Your task to perform on an android device: change alarm snooze length Image 0: 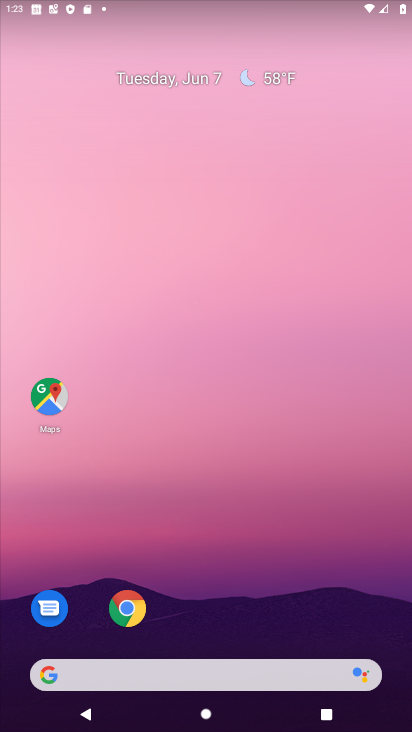
Step 0: drag from (283, 603) to (344, 132)
Your task to perform on an android device: change alarm snooze length Image 1: 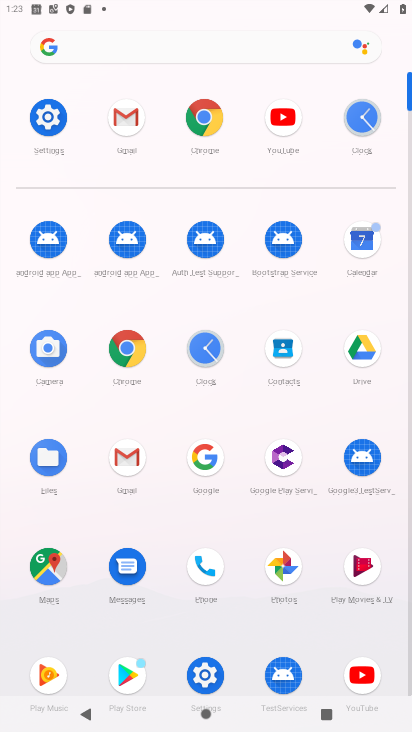
Step 1: click (374, 116)
Your task to perform on an android device: change alarm snooze length Image 2: 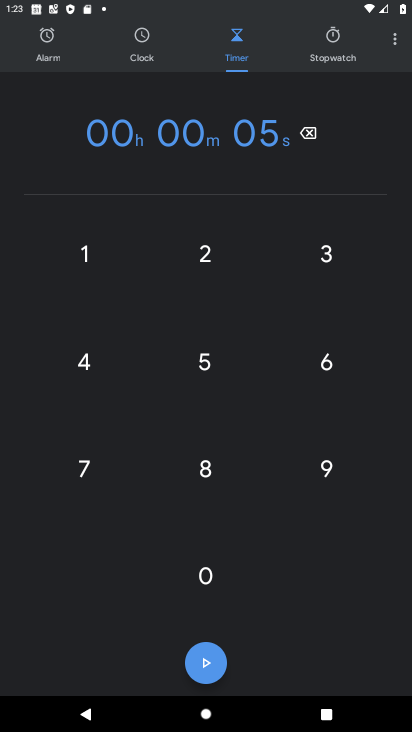
Step 2: click (394, 43)
Your task to perform on an android device: change alarm snooze length Image 3: 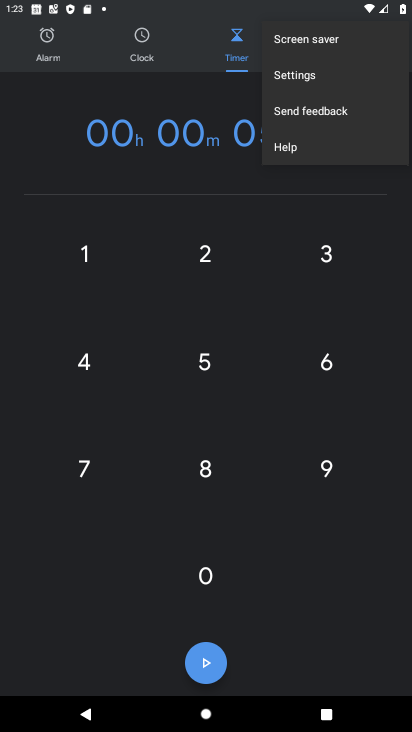
Step 3: click (331, 82)
Your task to perform on an android device: change alarm snooze length Image 4: 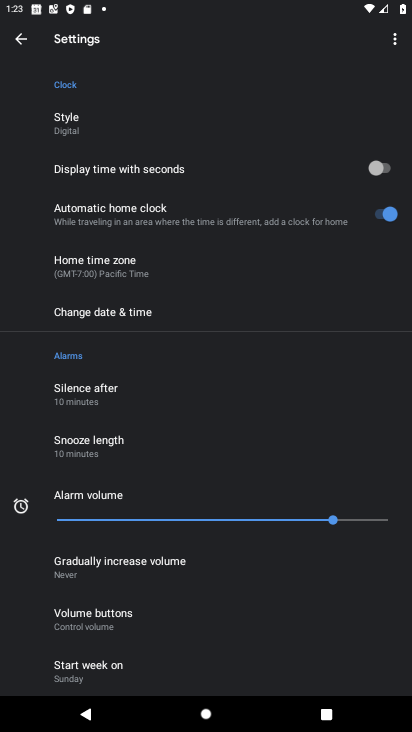
Step 4: click (102, 452)
Your task to perform on an android device: change alarm snooze length Image 5: 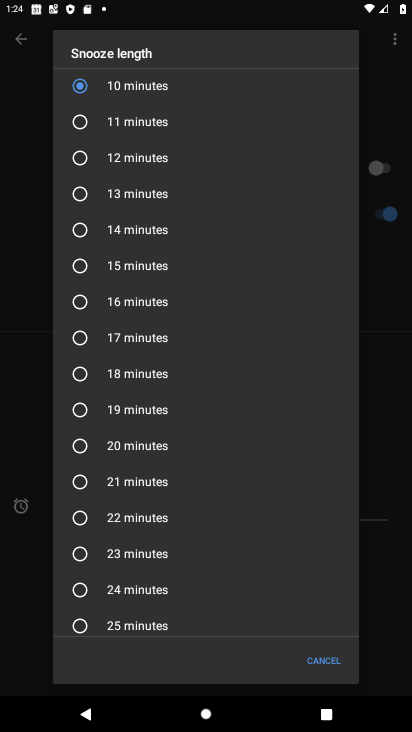
Step 5: click (143, 130)
Your task to perform on an android device: change alarm snooze length Image 6: 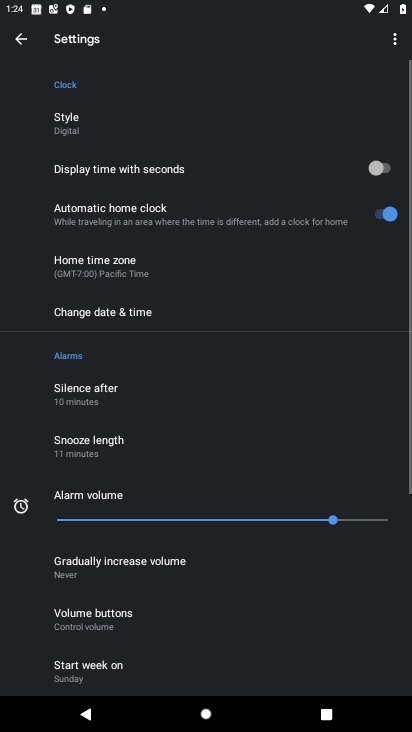
Step 6: task complete